Your task to perform on an android device: Search for vegetarian restaurants on Maps Image 0: 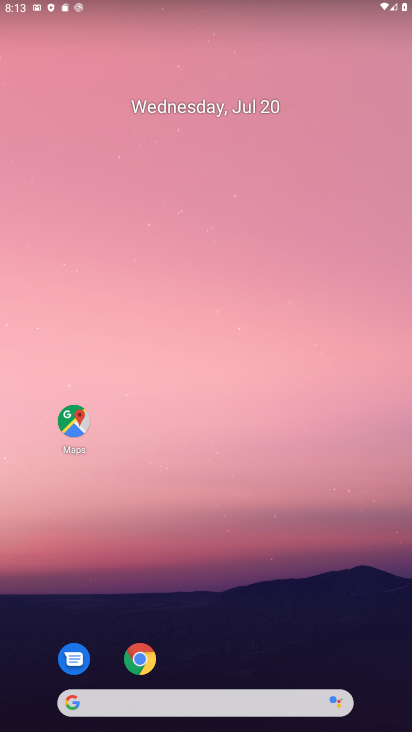
Step 0: drag from (278, 602) to (407, 67)
Your task to perform on an android device: Search for vegetarian restaurants on Maps Image 1: 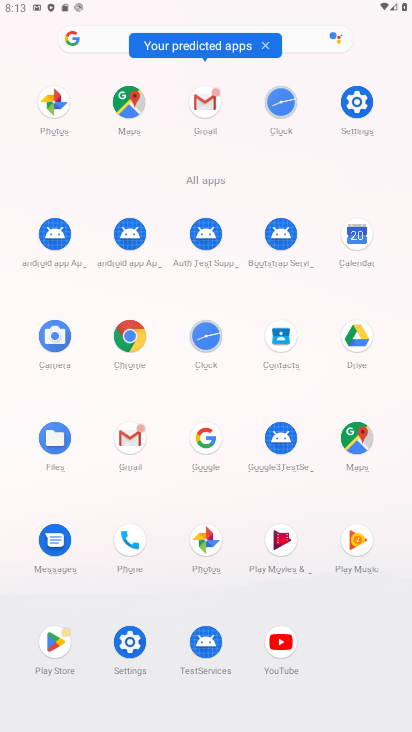
Step 1: click (135, 110)
Your task to perform on an android device: Search for vegetarian restaurants on Maps Image 2: 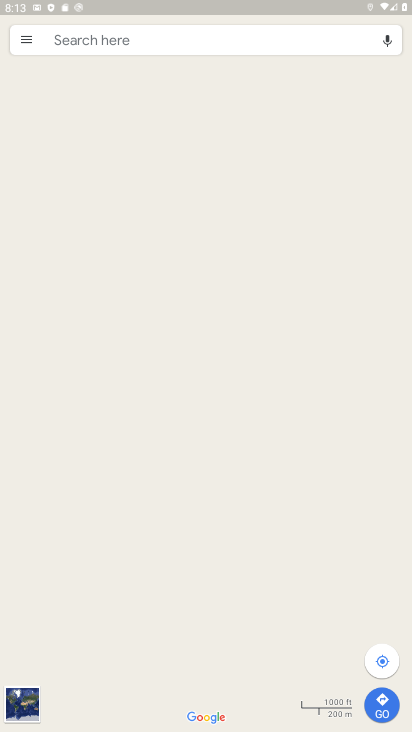
Step 2: click (201, 46)
Your task to perform on an android device: Search for vegetarian restaurants on Maps Image 3: 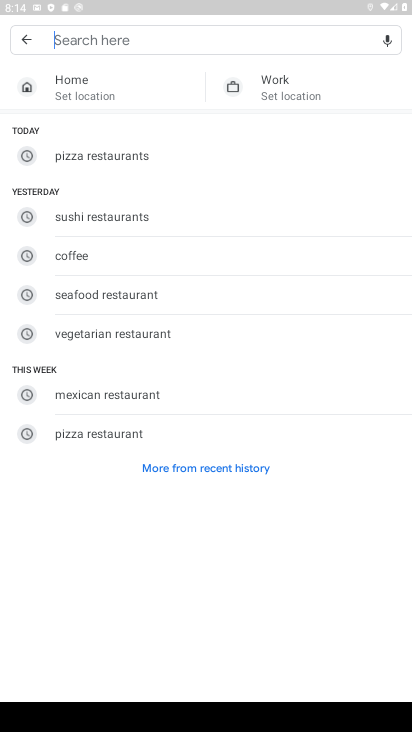
Step 3: type " vegetarian restaurants"
Your task to perform on an android device: Search for vegetarian restaurants on Maps Image 4: 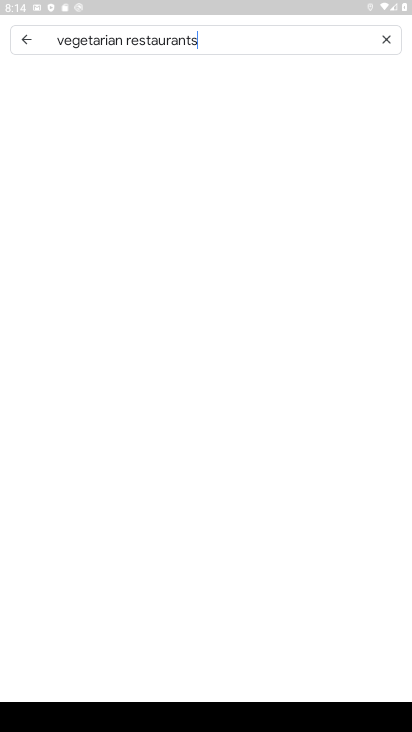
Step 4: type ""
Your task to perform on an android device: Search for vegetarian restaurants on Maps Image 5: 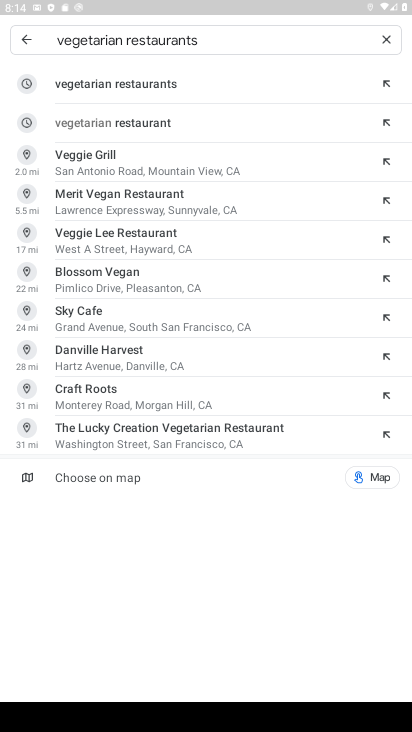
Step 5: click (136, 82)
Your task to perform on an android device: Search for vegetarian restaurants on Maps Image 6: 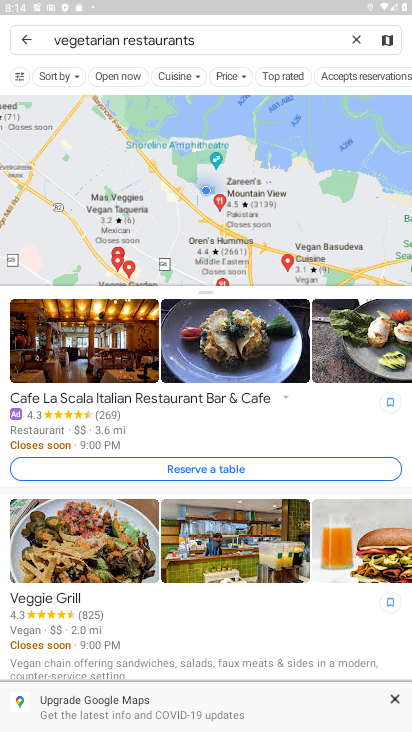
Step 6: task complete